Your task to perform on an android device: Open my contact list Image 0: 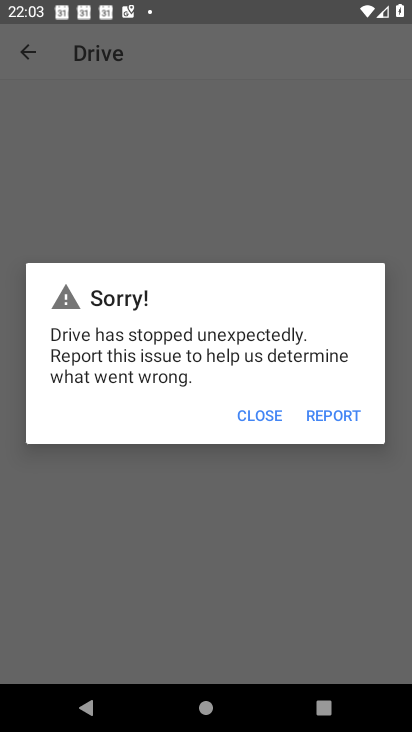
Step 0: press home button
Your task to perform on an android device: Open my contact list Image 1: 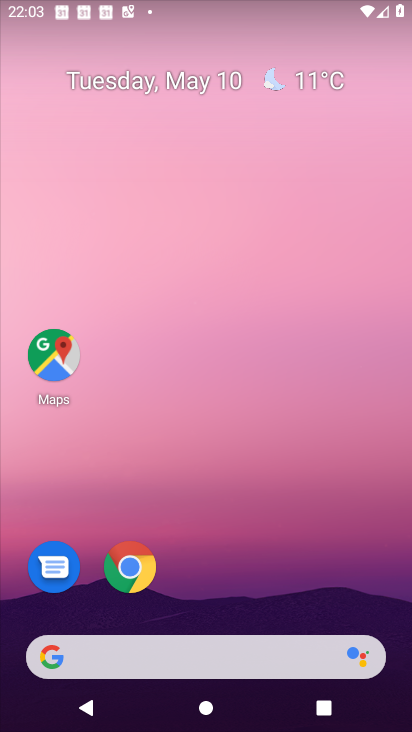
Step 1: drag from (147, 563) to (163, 314)
Your task to perform on an android device: Open my contact list Image 2: 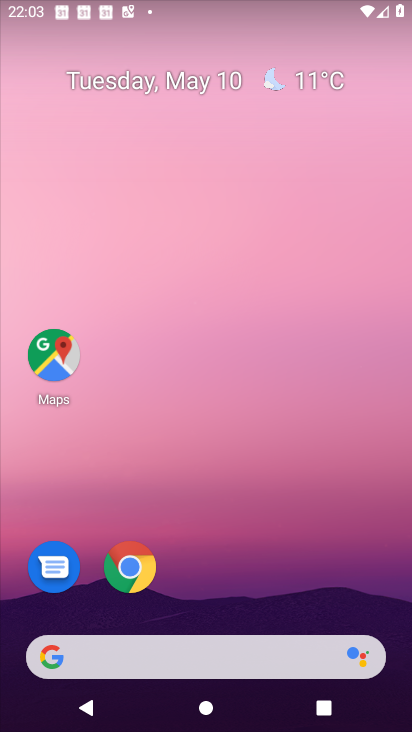
Step 2: drag from (189, 627) to (191, 422)
Your task to perform on an android device: Open my contact list Image 3: 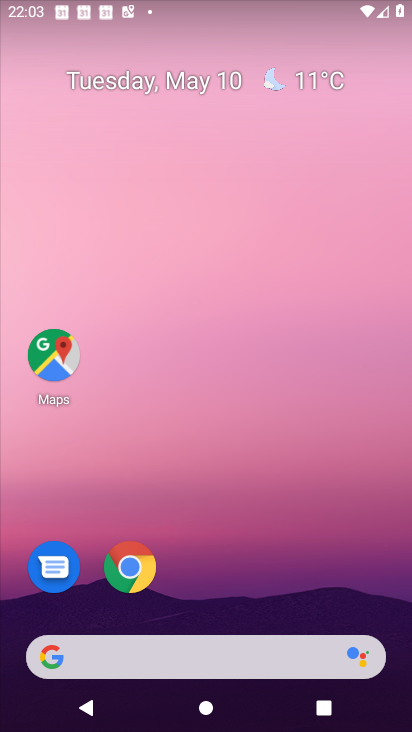
Step 3: drag from (193, 623) to (152, 184)
Your task to perform on an android device: Open my contact list Image 4: 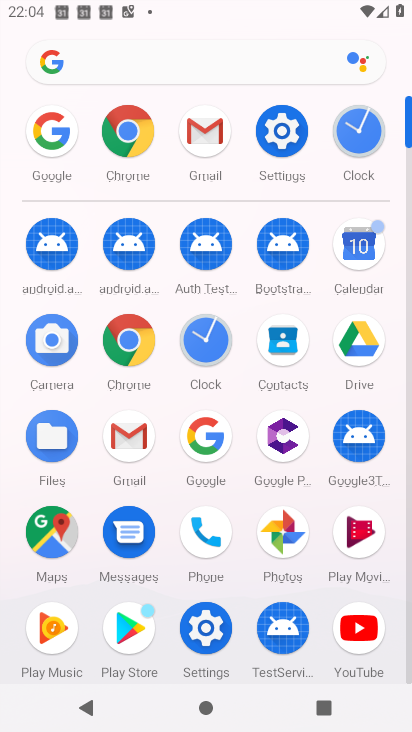
Step 4: click (292, 347)
Your task to perform on an android device: Open my contact list Image 5: 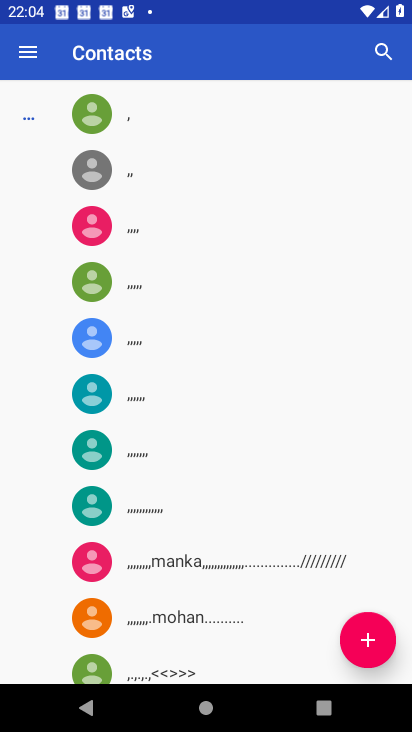
Step 5: task complete